Your task to perform on an android device: Go to Google Image 0: 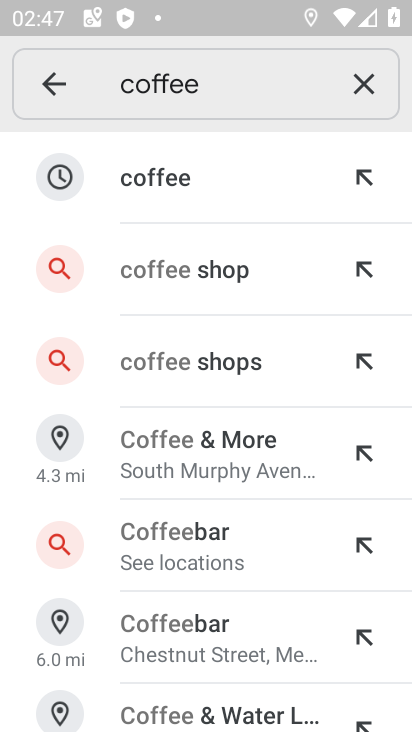
Step 0: press home button
Your task to perform on an android device: Go to Google Image 1: 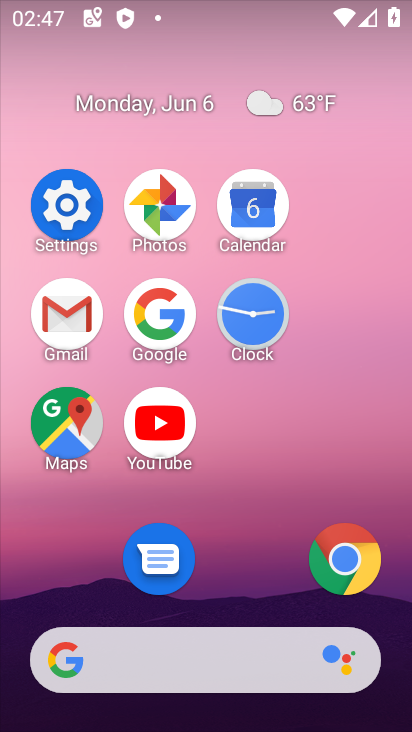
Step 1: click (166, 321)
Your task to perform on an android device: Go to Google Image 2: 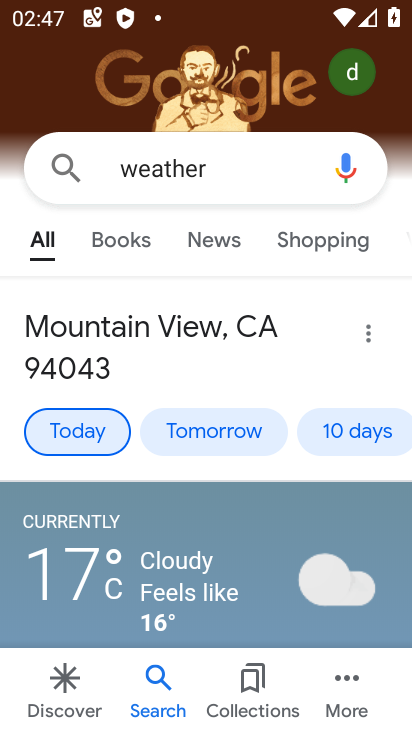
Step 2: task complete